Your task to perform on an android device: turn on showing notifications on the lock screen Image 0: 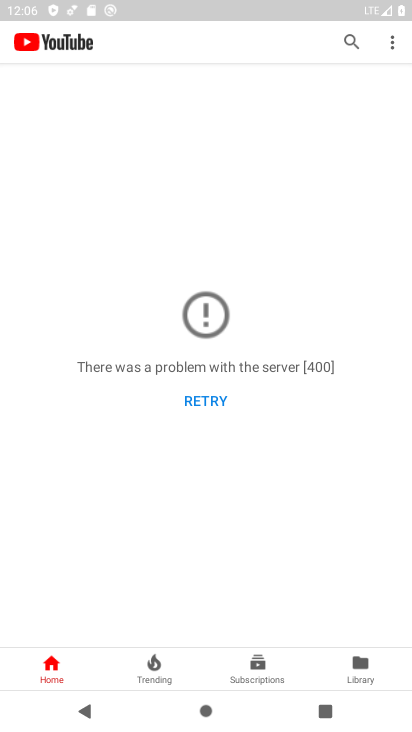
Step 0: press home button
Your task to perform on an android device: turn on showing notifications on the lock screen Image 1: 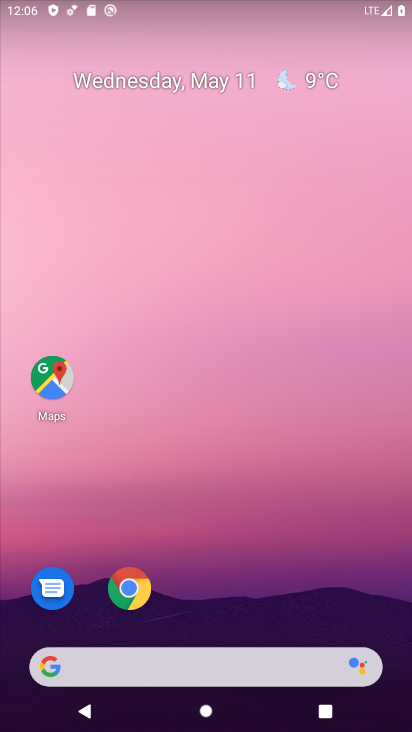
Step 1: drag from (349, 622) to (389, 76)
Your task to perform on an android device: turn on showing notifications on the lock screen Image 2: 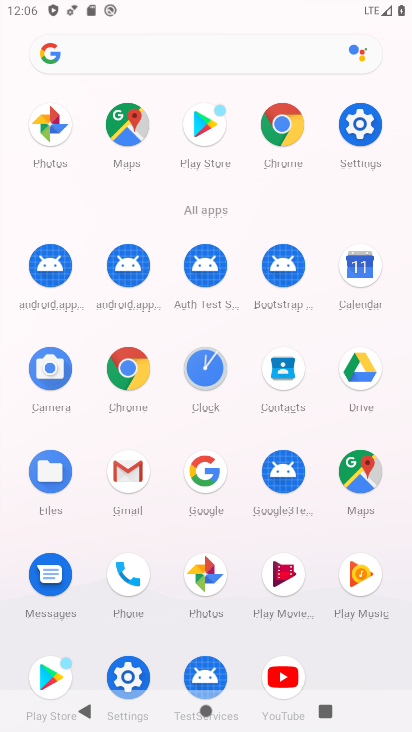
Step 2: click (360, 133)
Your task to perform on an android device: turn on showing notifications on the lock screen Image 3: 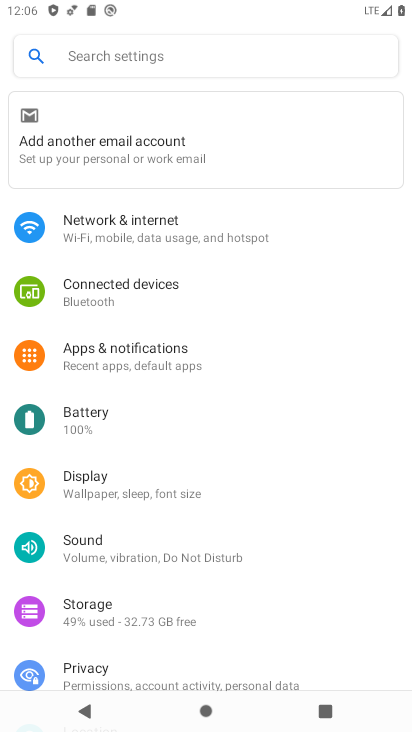
Step 3: click (137, 369)
Your task to perform on an android device: turn on showing notifications on the lock screen Image 4: 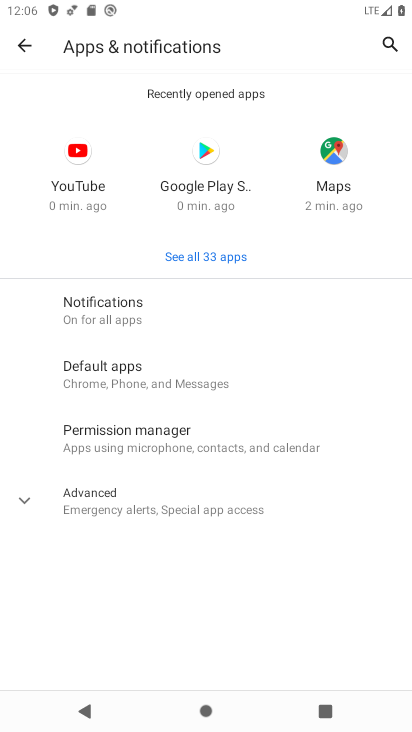
Step 4: click (114, 318)
Your task to perform on an android device: turn on showing notifications on the lock screen Image 5: 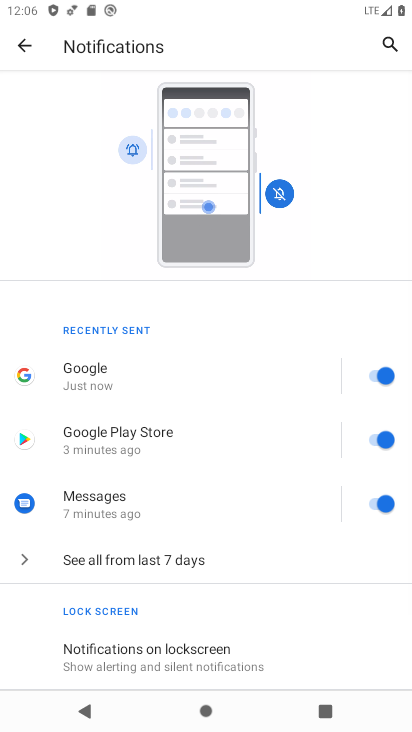
Step 5: click (124, 663)
Your task to perform on an android device: turn on showing notifications on the lock screen Image 6: 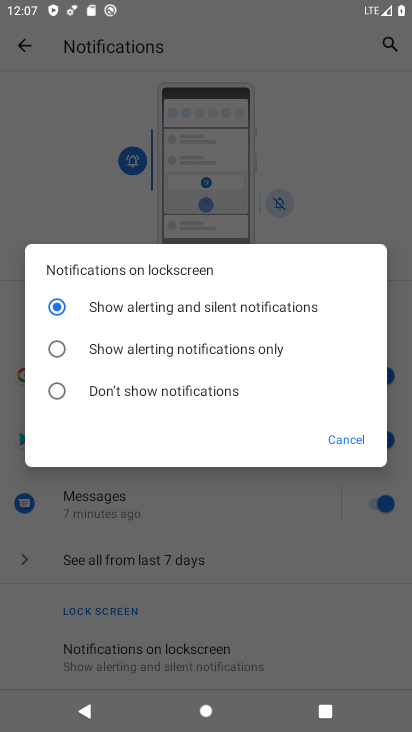
Step 6: task complete